Your task to perform on an android device: turn off javascript in the chrome app Image 0: 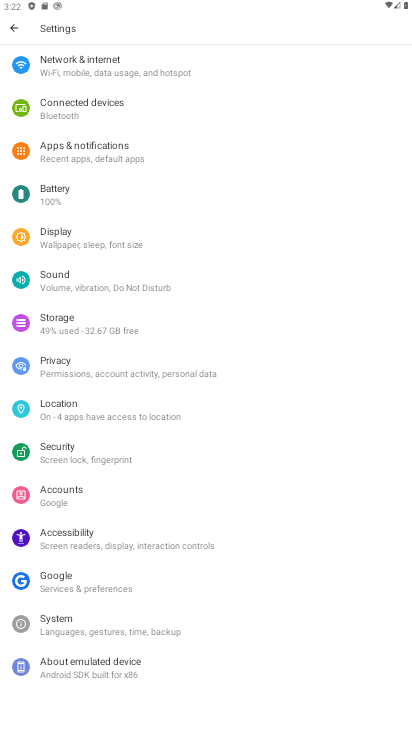
Step 0: press home button
Your task to perform on an android device: turn off javascript in the chrome app Image 1: 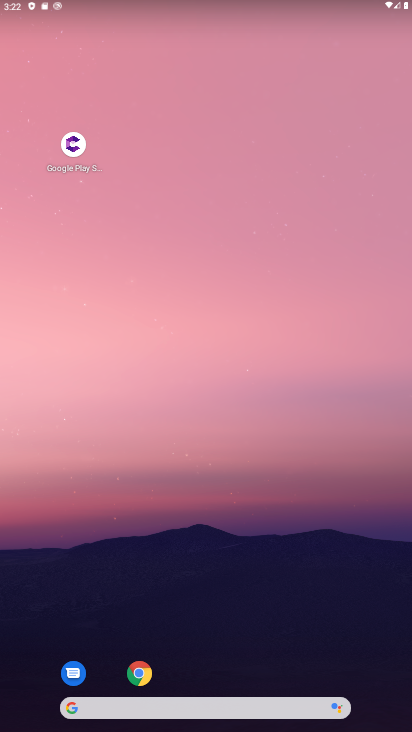
Step 1: click (140, 678)
Your task to perform on an android device: turn off javascript in the chrome app Image 2: 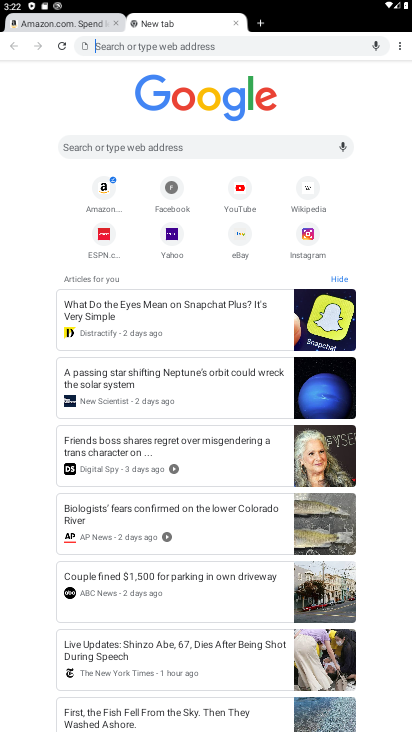
Step 2: drag from (403, 49) to (311, 214)
Your task to perform on an android device: turn off javascript in the chrome app Image 3: 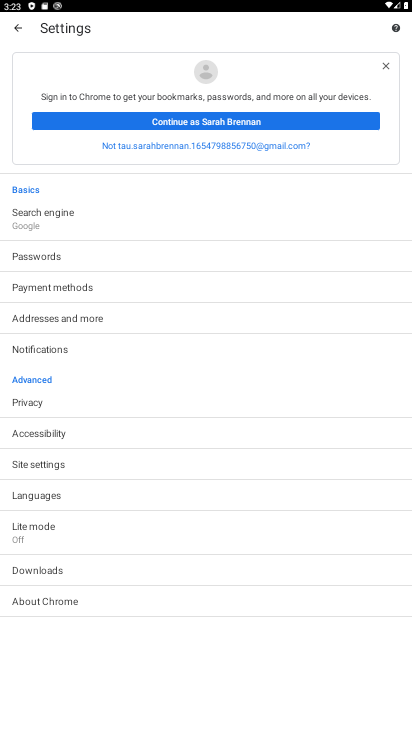
Step 3: click (52, 463)
Your task to perform on an android device: turn off javascript in the chrome app Image 4: 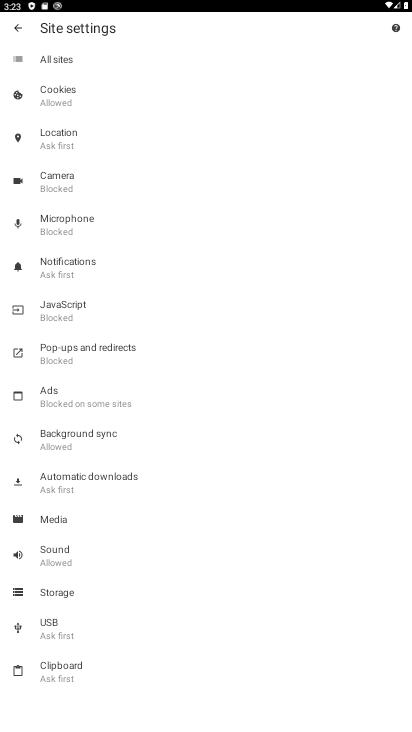
Step 4: click (63, 314)
Your task to perform on an android device: turn off javascript in the chrome app Image 5: 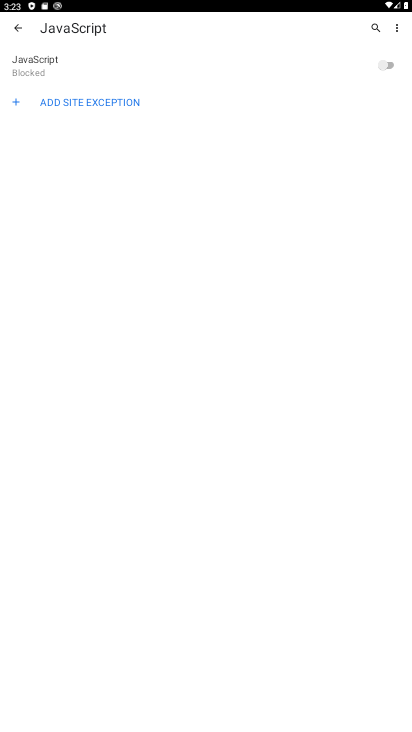
Step 5: task complete